Your task to perform on an android device: Empty the shopping cart on target. Add "razer naga" to the cart on target, then select checkout. Image 0: 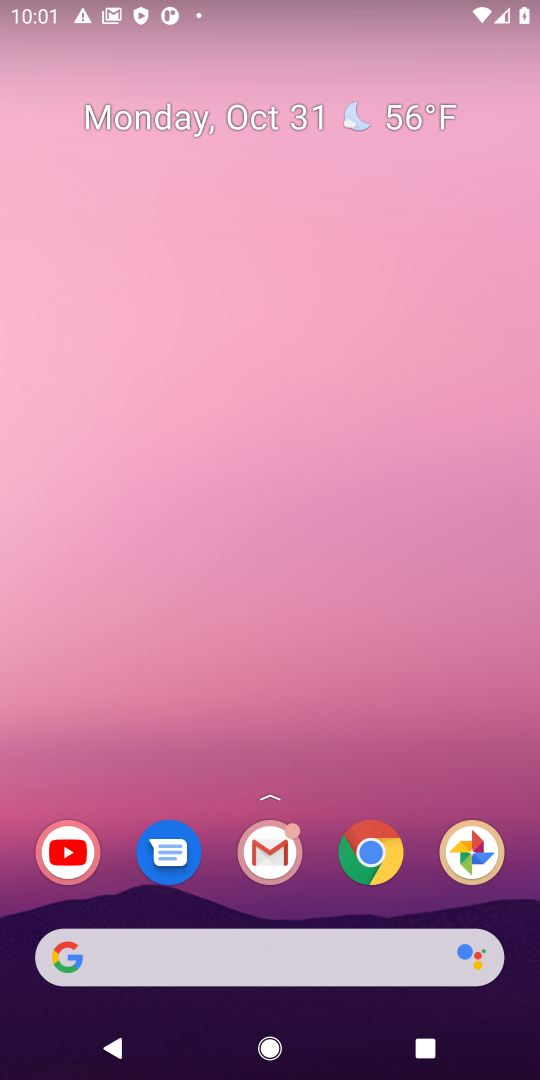
Step 0: drag from (321, 789) to (321, 39)
Your task to perform on an android device: Empty the shopping cart on target. Add "razer naga" to the cart on target, then select checkout. Image 1: 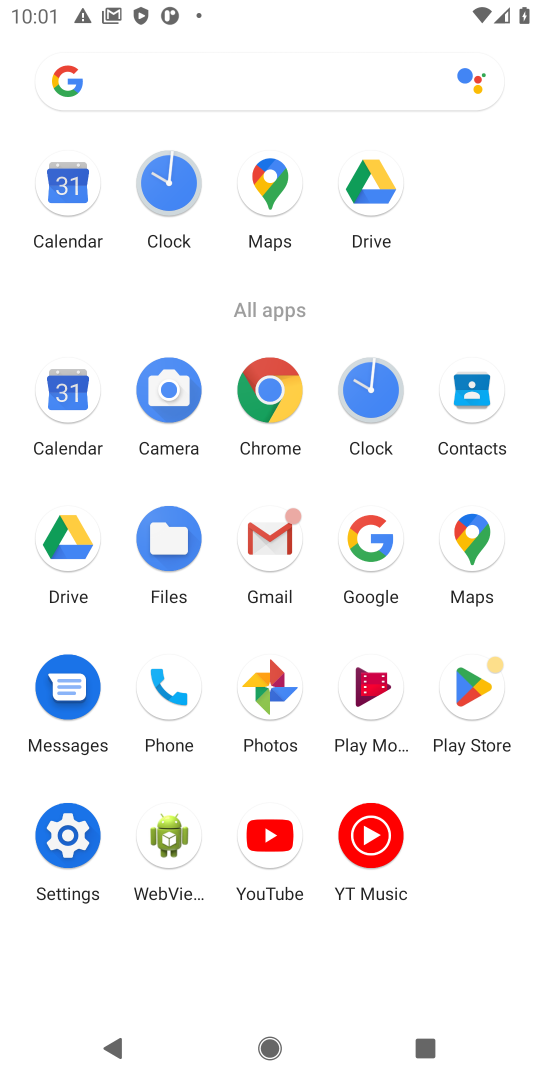
Step 1: click (264, 390)
Your task to perform on an android device: Empty the shopping cart on target. Add "razer naga" to the cart on target, then select checkout. Image 2: 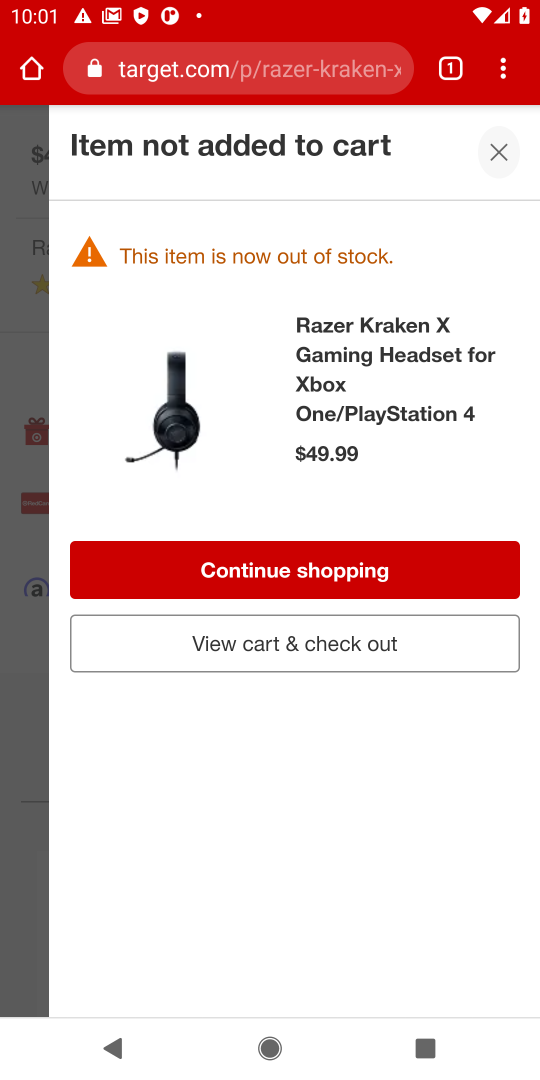
Step 2: click (498, 150)
Your task to perform on an android device: Empty the shopping cart on target. Add "razer naga" to the cart on target, then select checkout. Image 3: 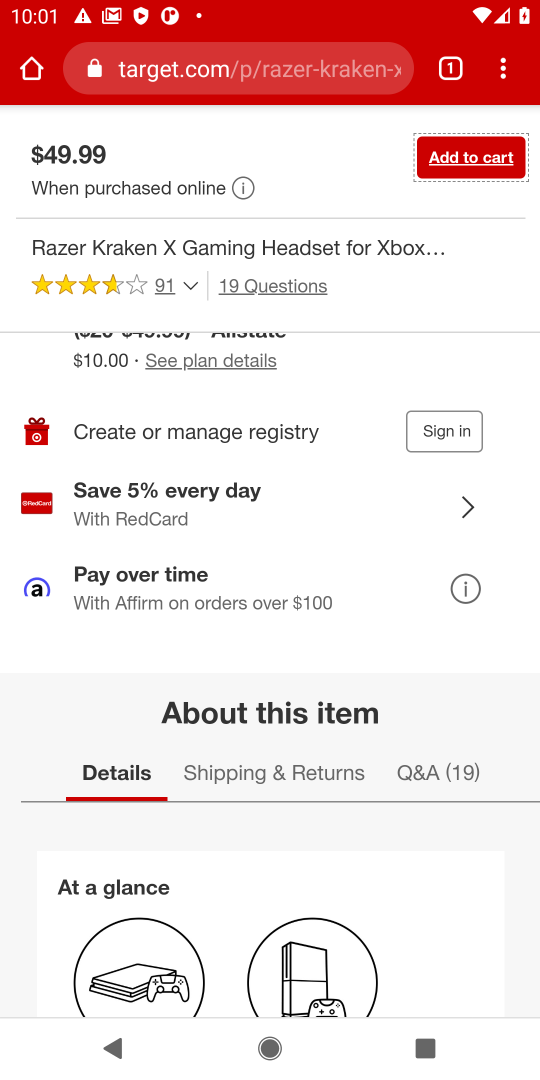
Step 3: press back button
Your task to perform on an android device: Empty the shopping cart on target. Add "razer naga" to the cart on target, then select checkout. Image 4: 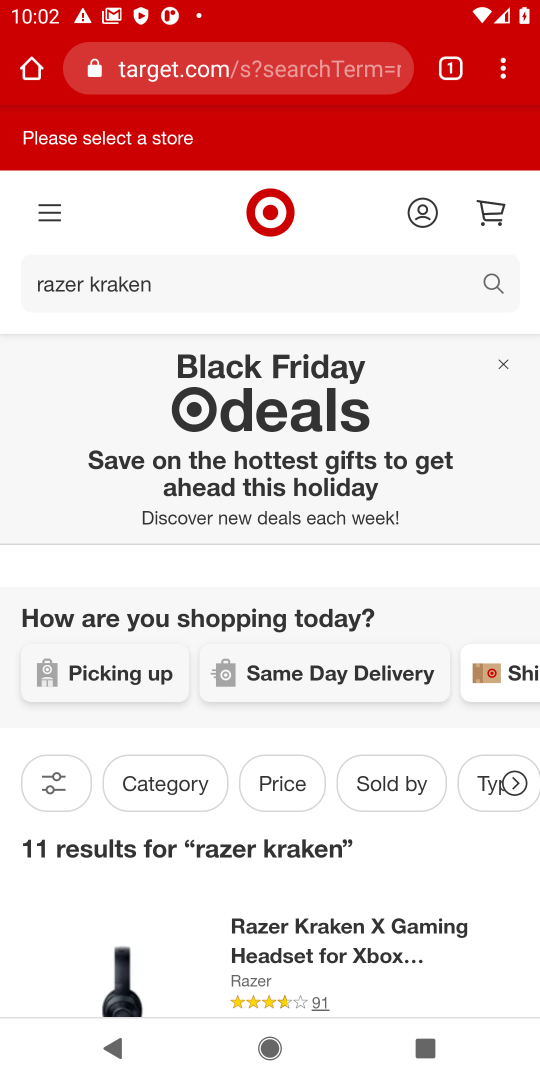
Step 4: click (185, 278)
Your task to perform on an android device: Empty the shopping cart on target. Add "razer naga" to the cart on target, then select checkout. Image 5: 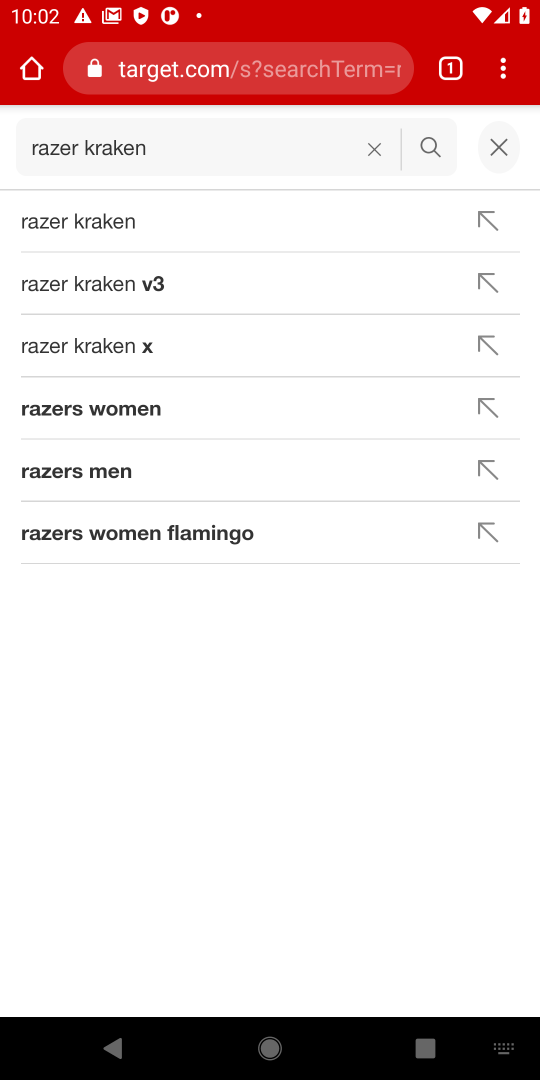
Step 5: click (371, 147)
Your task to perform on an android device: Empty the shopping cart on target. Add "razer naga" to the cart on target, then select checkout. Image 6: 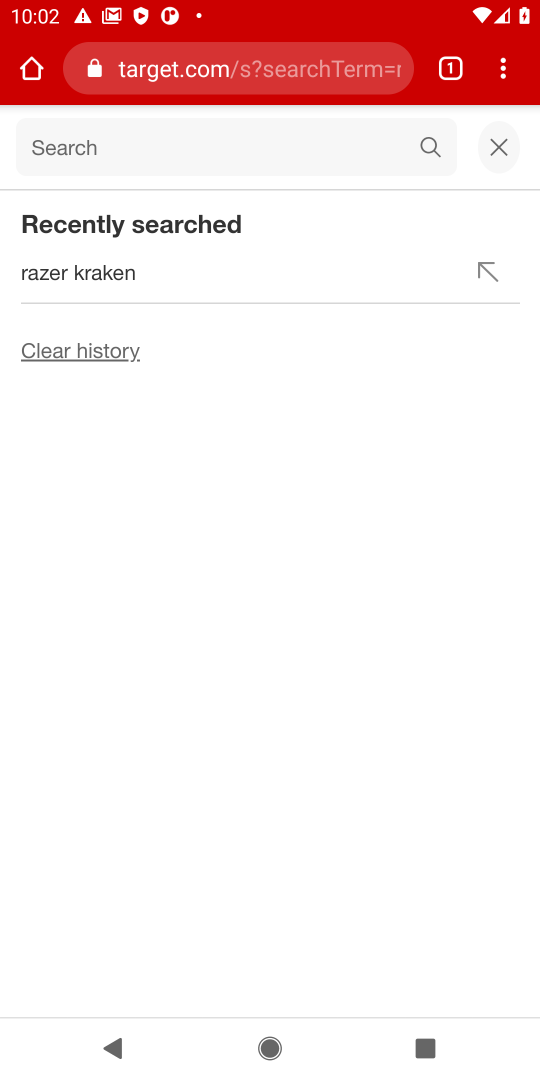
Step 6: click (104, 137)
Your task to perform on an android device: Empty the shopping cart on target. Add "razer naga" to the cart on target, then select checkout. Image 7: 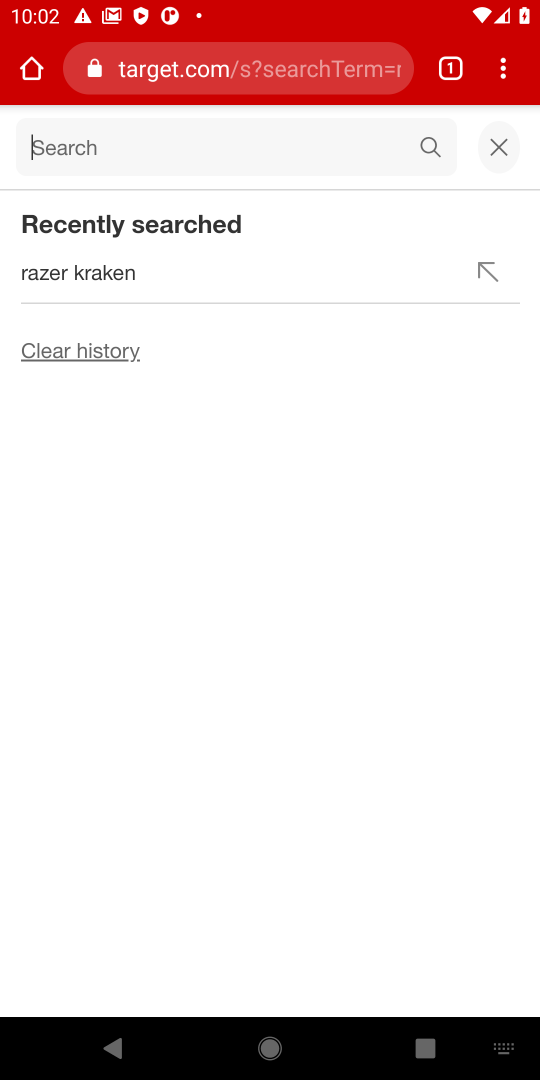
Step 7: type "razer naga"
Your task to perform on an android device: Empty the shopping cart on target. Add "razer naga" to the cart on target, then select checkout. Image 8: 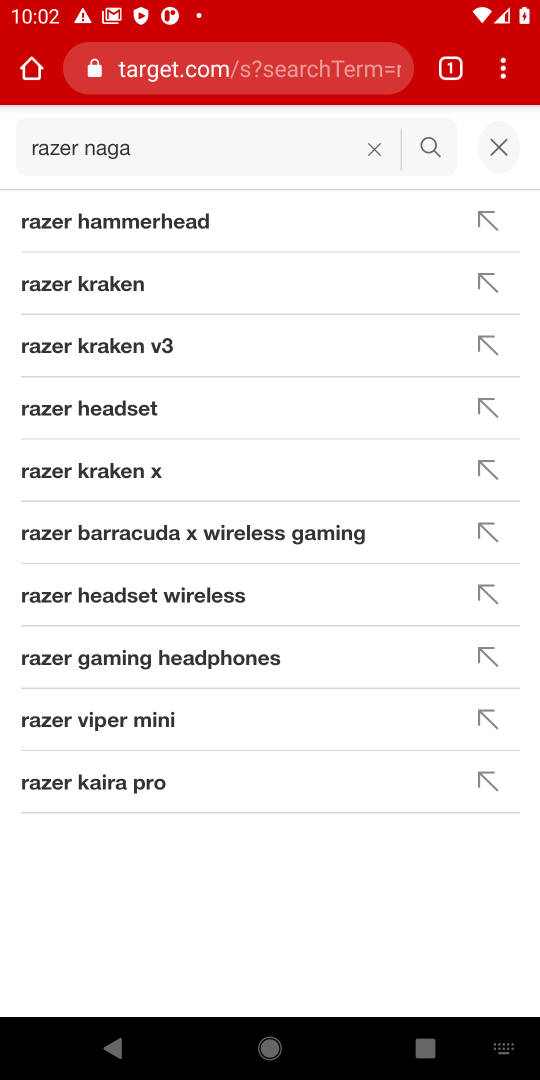
Step 8: click (436, 148)
Your task to perform on an android device: Empty the shopping cart on target. Add "razer naga" to the cart on target, then select checkout. Image 9: 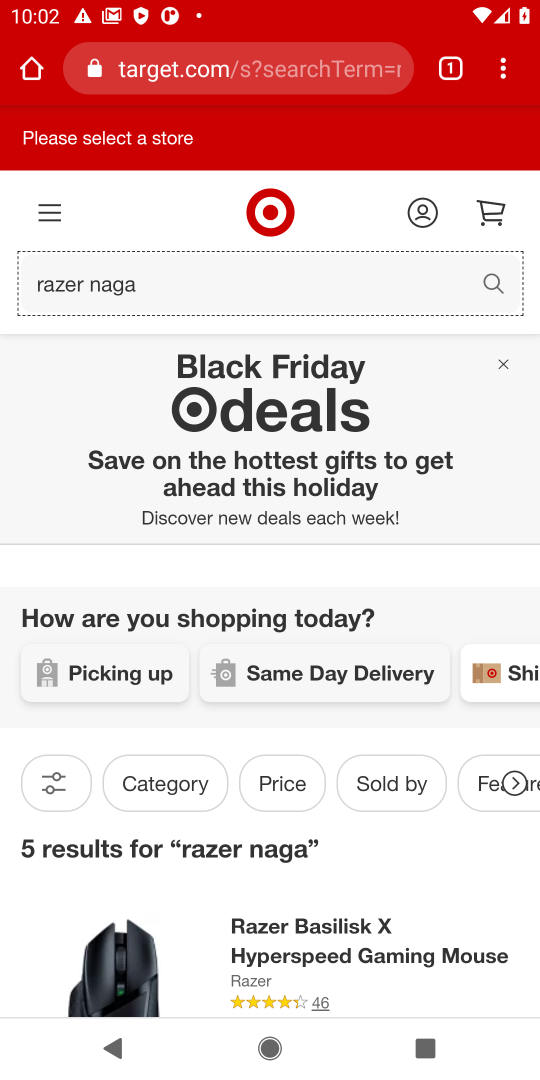
Step 9: task complete